Your task to perform on an android device: toggle wifi Image 0: 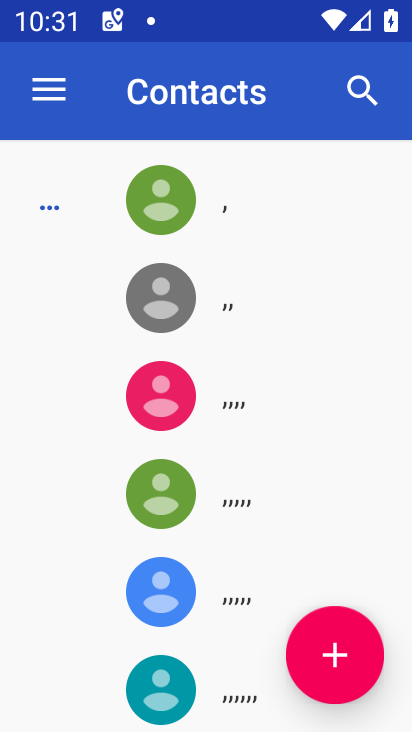
Step 0: press home button
Your task to perform on an android device: toggle wifi Image 1: 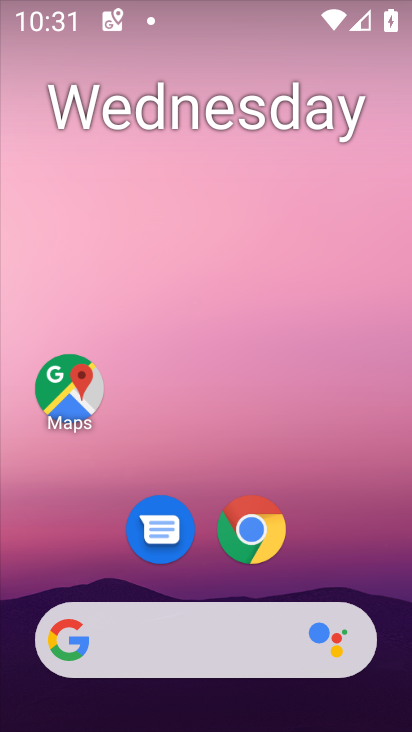
Step 1: drag from (401, 613) to (334, 106)
Your task to perform on an android device: toggle wifi Image 2: 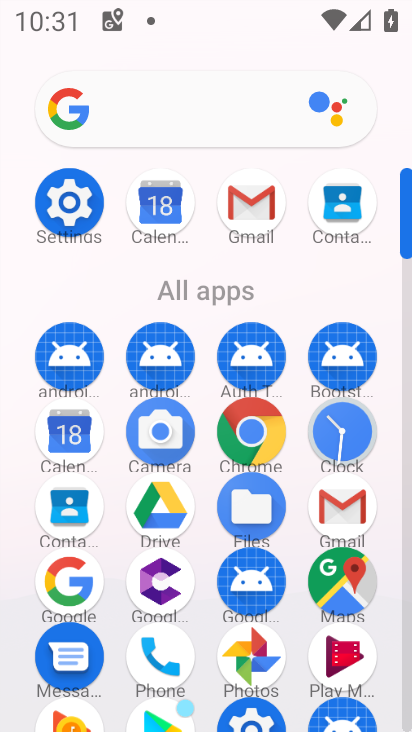
Step 2: click (407, 696)
Your task to perform on an android device: toggle wifi Image 3: 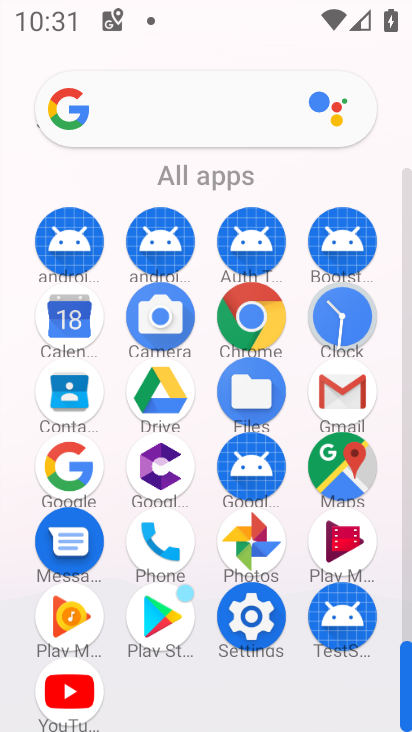
Step 3: click (253, 621)
Your task to perform on an android device: toggle wifi Image 4: 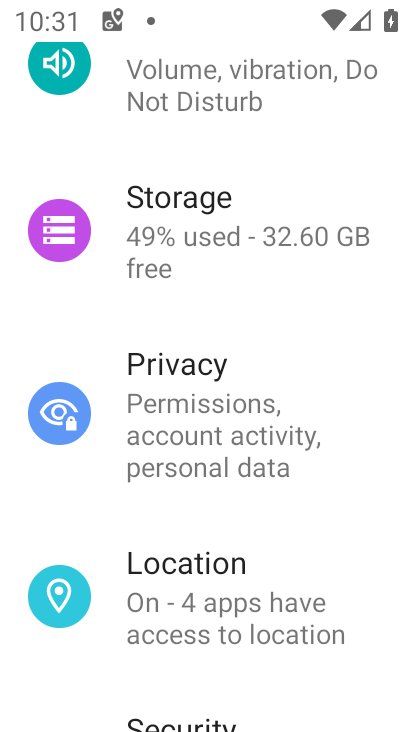
Step 4: drag from (341, 154) to (343, 628)
Your task to perform on an android device: toggle wifi Image 5: 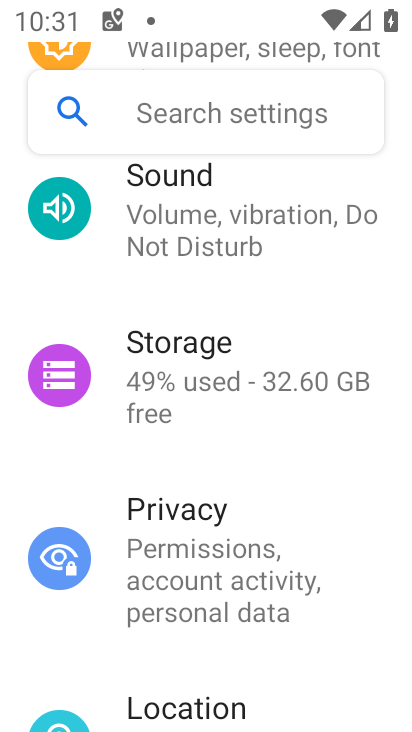
Step 5: drag from (364, 248) to (360, 676)
Your task to perform on an android device: toggle wifi Image 6: 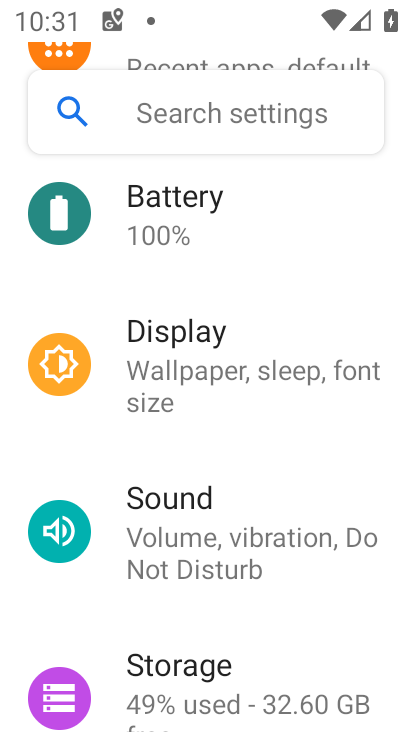
Step 6: drag from (345, 187) to (343, 660)
Your task to perform on an android device: toggle wifi Image 7: 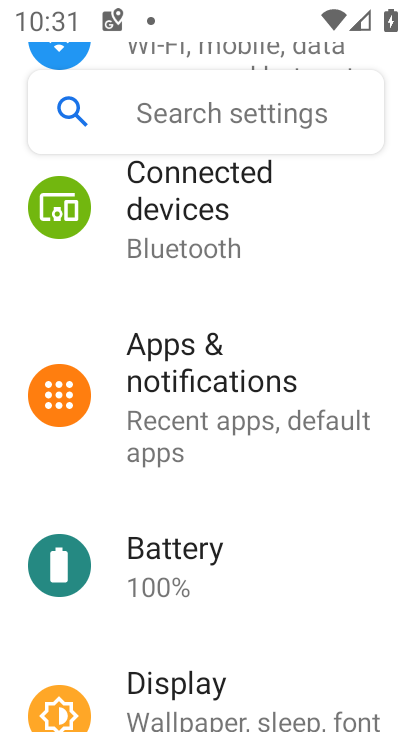
Step 7: drag from (336, 168) to (302, 562)
Your task to perform on an android device: toggle wifi Image 8: 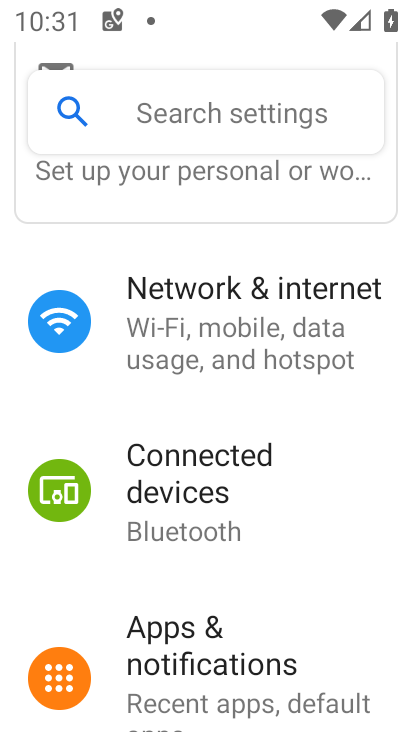
Step 8: click (189, 299)
Your task to perform on an android device: toggle wifi Image 9: 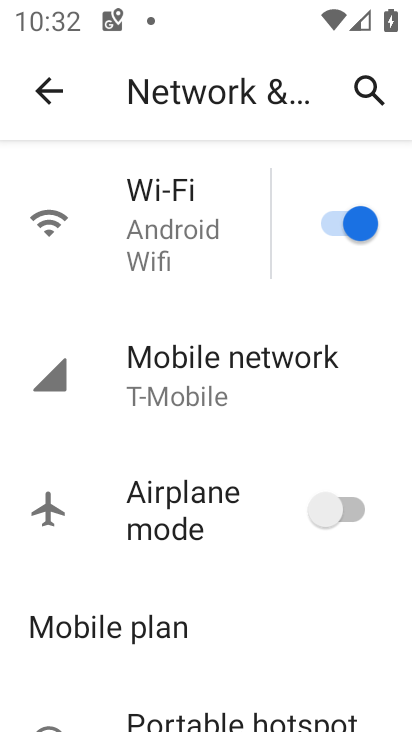
Step 9: click (328, 228)
Your task to perform on an android device: toggle wifi Image 10: 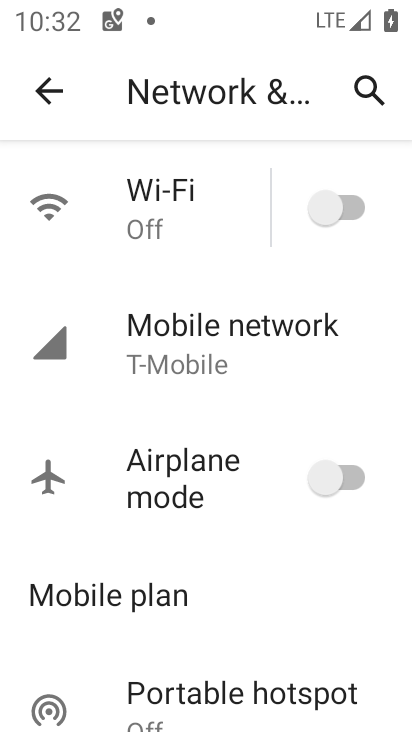
Step 10: task complete